Your task to perform on an android device: Open Amazon Image 0: 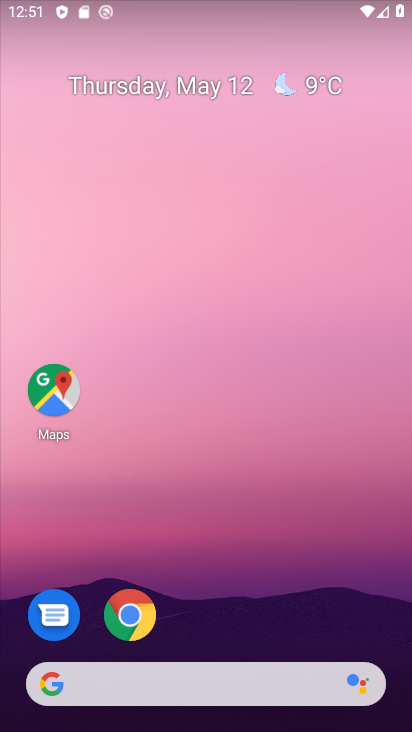
Step 0: click (142, 612)
Your task to perform on an android device: Open Amazon Image 1: 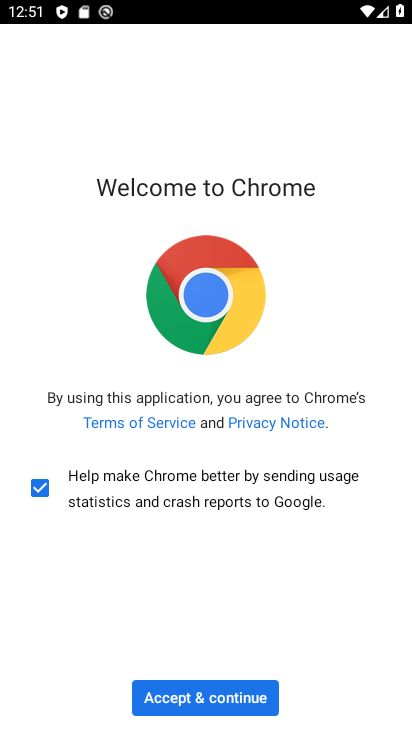
Step 1: click (194, 696)
Your task to perform on an android device: Open Amazon Image 2: 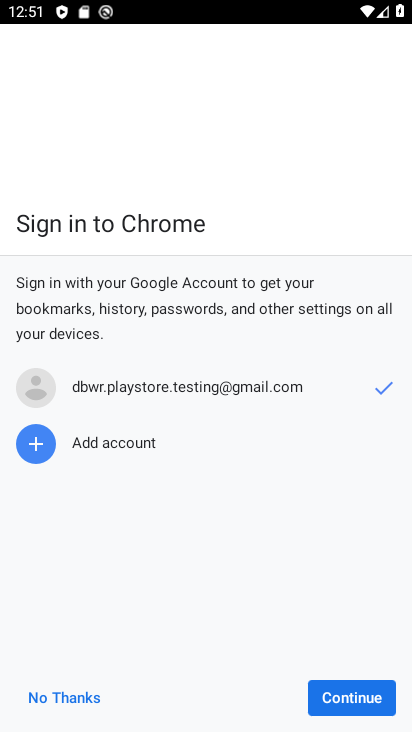
Step 2: click (343, 706)
Your task to perform on an android device: Open Amazon Image 3: 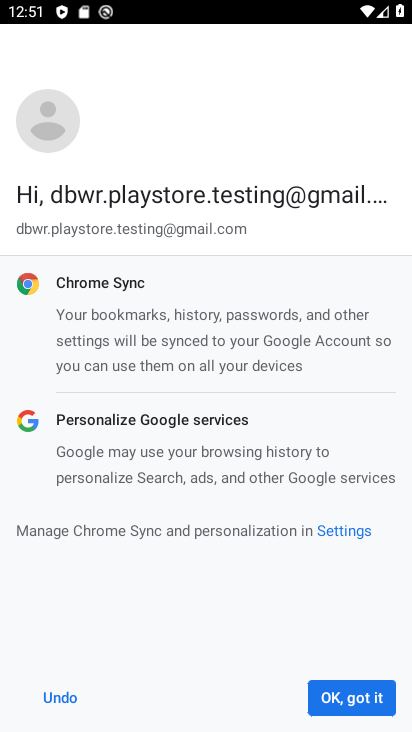
Step 3: click (343, 706)
Your task to perform on an android device: Open Amazon Image 4: 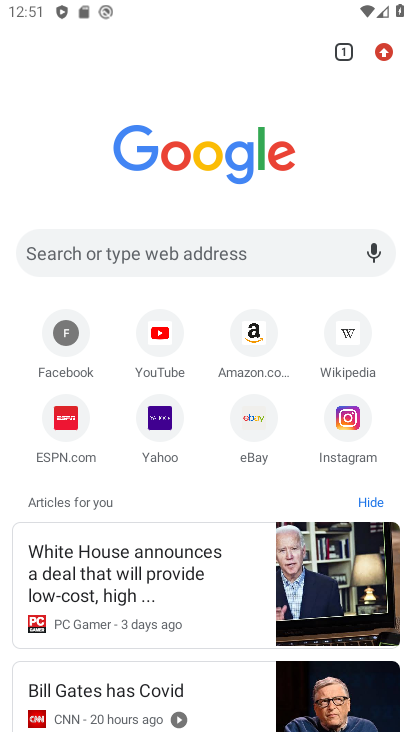
Step 4: click (252, 330)
Your task to perform on an android device: Open Amazon Image 5: 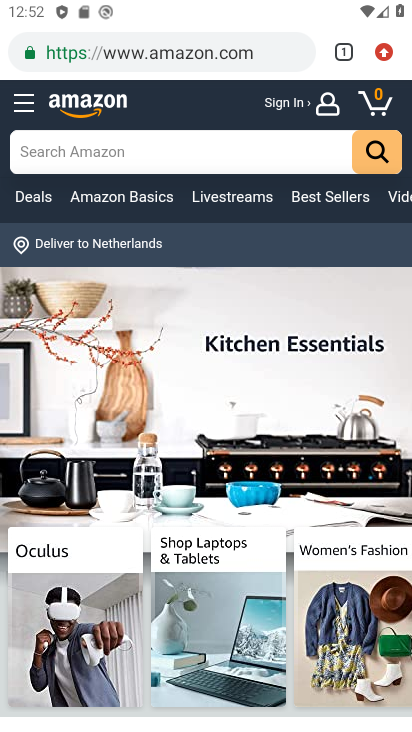
Step 5: task complete